Your task to perform on an android device: see sites visited before in the chrome app Image 0: 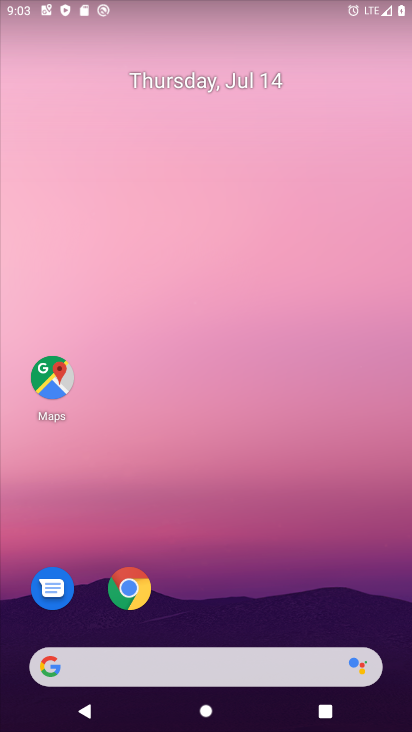
Step 0: drag from (240, 552) to (163, 2)
Your task to perform on an android device: see sites visited before in the chrome app Image 1: 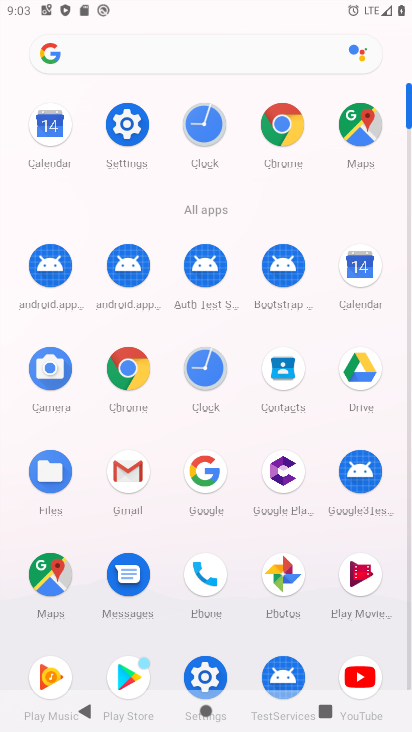
Step 1: click (295, 125)
Your task to perform on an android device: see sites visited before in the chrome app Image 2: 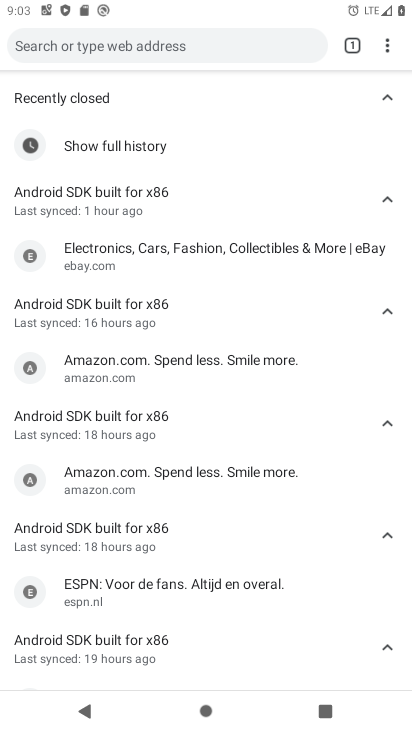
Step 2: task complete